Your task to perform on an android device: visit the assistant section in the google photos Image 0: 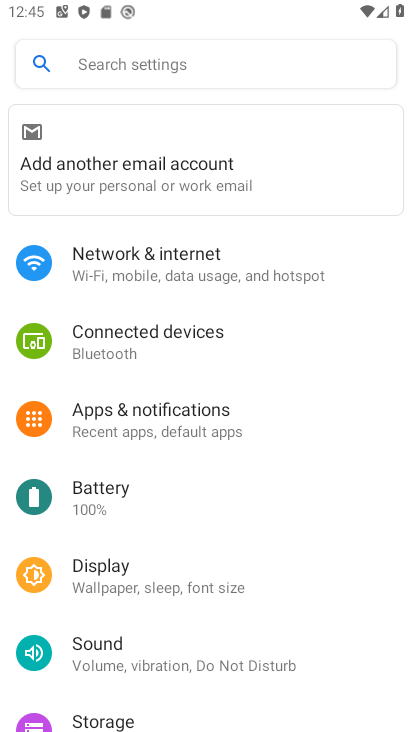
Step 0: task complete